Your task to perform on an android device: View the shopping cart on ebay.com. Search for usb-c to usb-b on ebay.com, select the first entry, add it to the cart, then select checkout. Image 0: 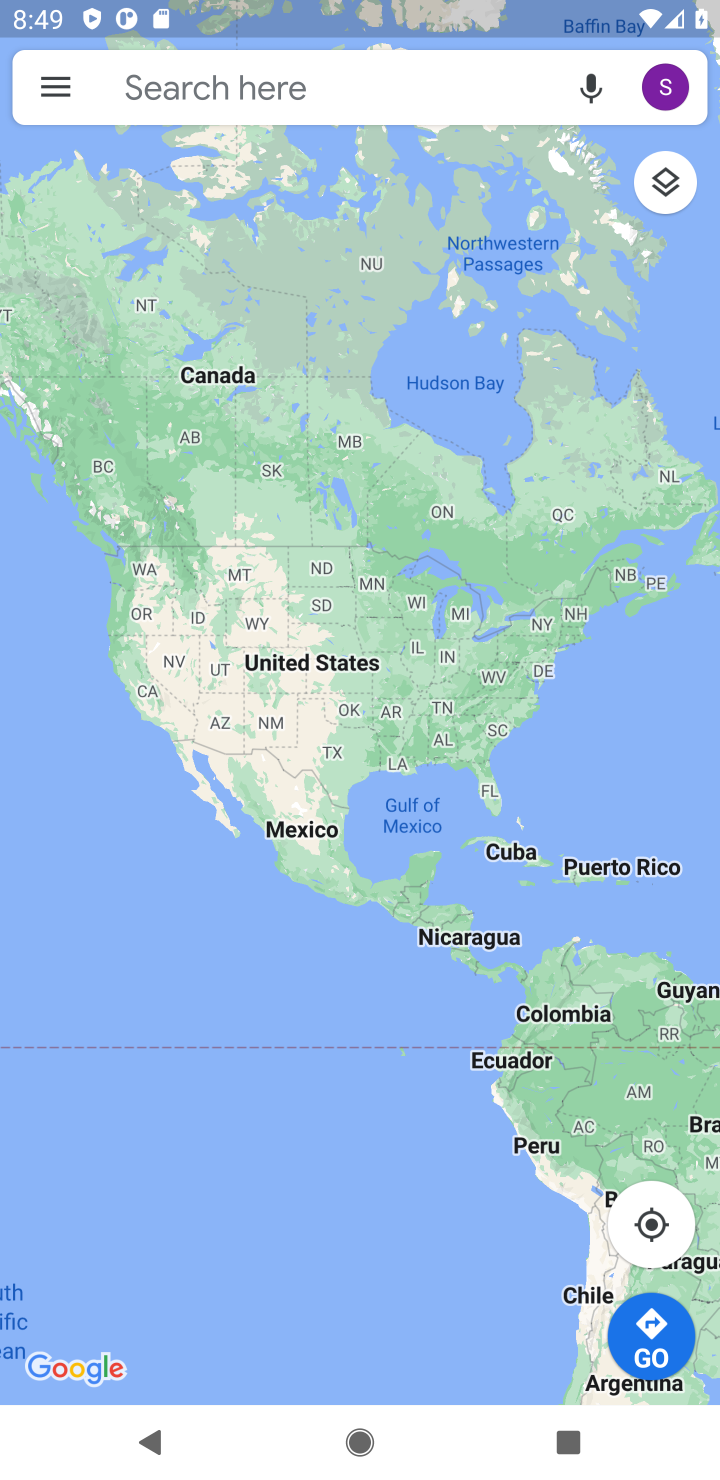
Step 0: press home button
Your task to perform on an android device: View the shopping cart on ebay.com. Search for usb-c to usb-b on ebay.com, select the first entry, add it to the cart, then select checkout. Image 1: 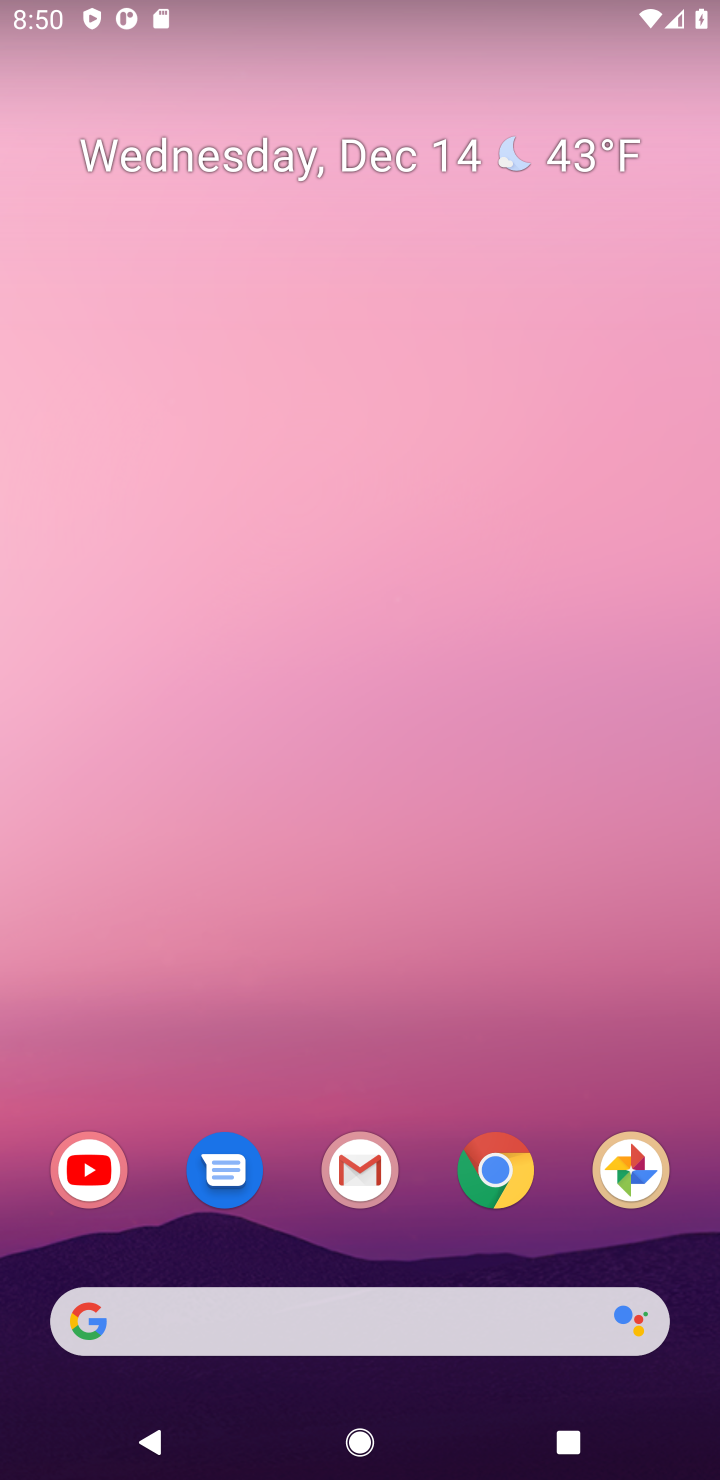
Step 1: click (501, 1167)
Your task to perform on an android device: View the shopping cart on ebay.com. Search for usb-c to usb-b on ebay.com, select the first entry, add it to the cart, then select checkout. Image 2: 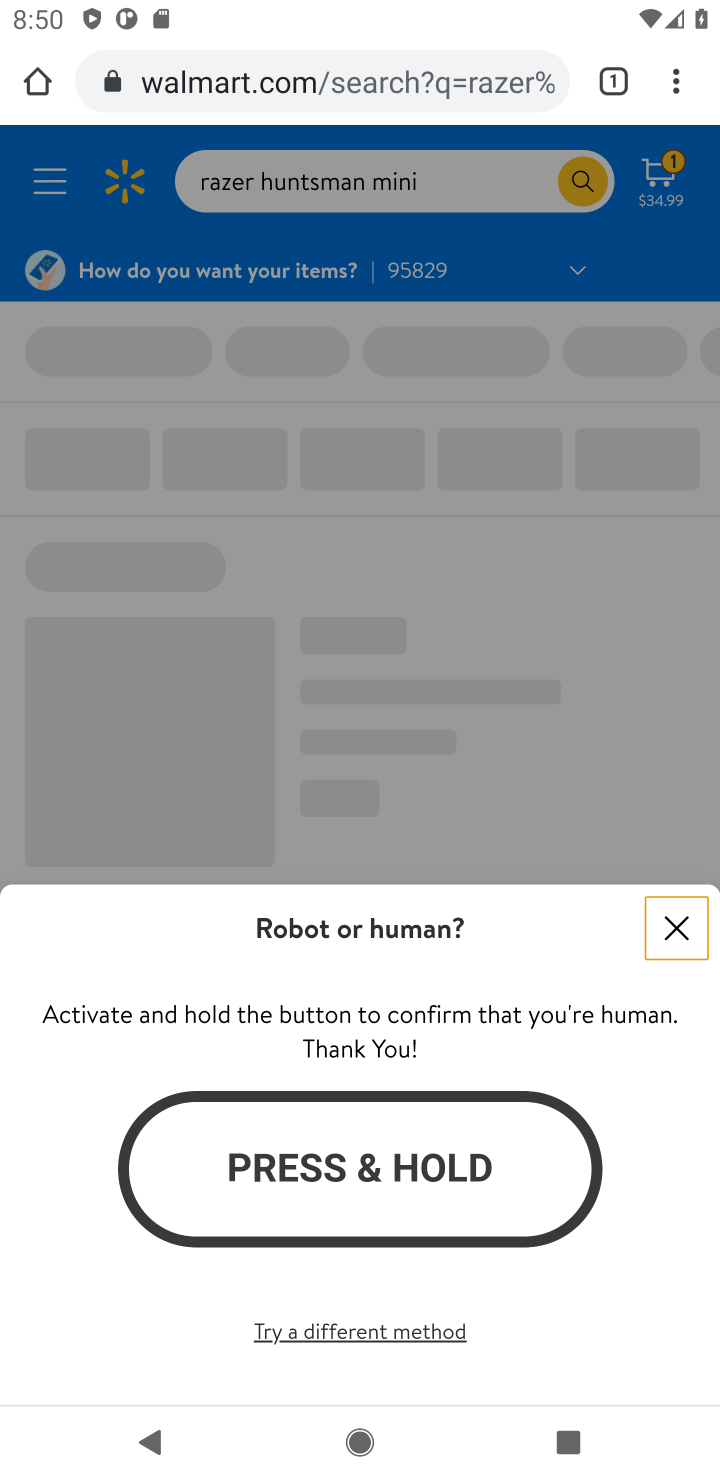
Step 2: click (325, 79)
Your task to perform on an android device: View the shopping cart on ebay.com. Search for usb-c to usb-b on ebay.com, select the first entry, add it to the cart, then select checkout. Image 3: 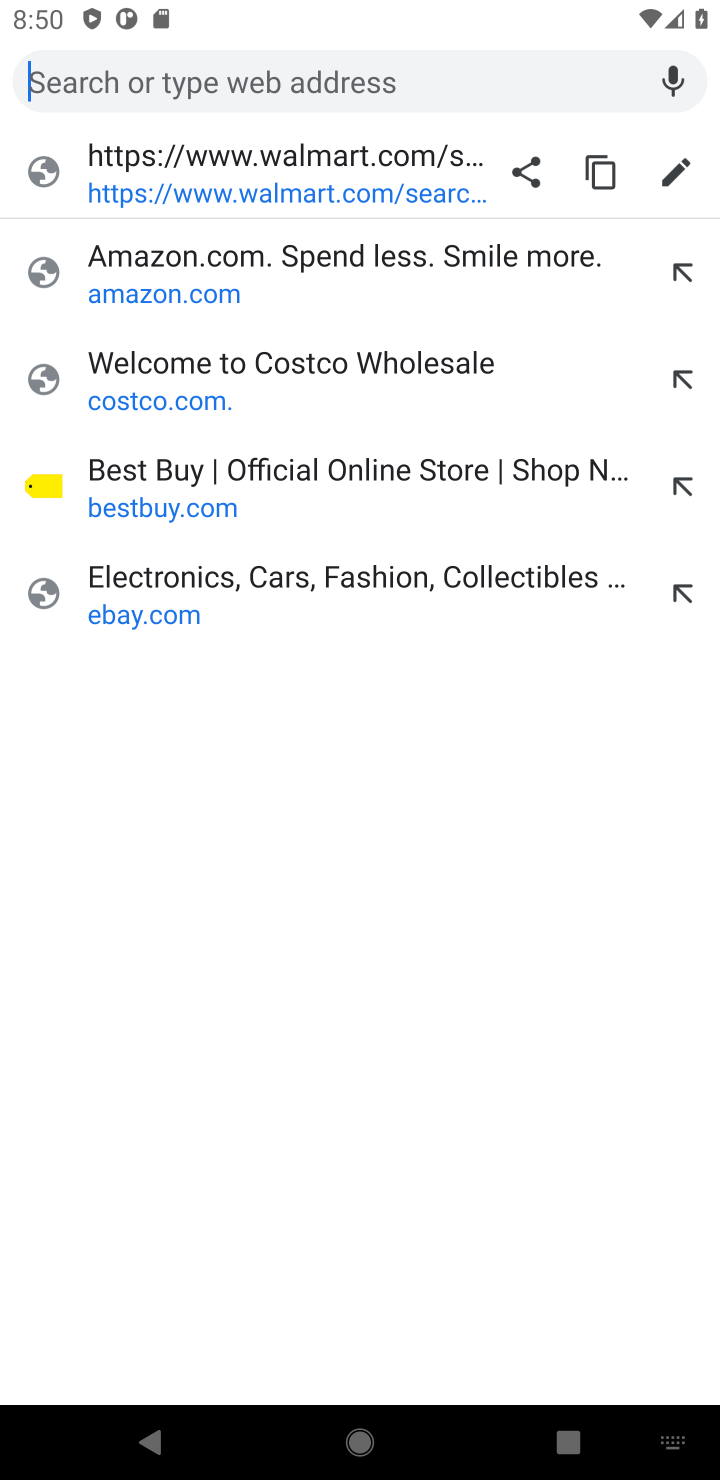
Step 3: click (334, 614)
Your task to perform on an android device: View the shopping cart on ebay.com. Search for usb-c to usb-b on ebay.com, select the first entry, add it to the cart, then select checkout. Image 4: 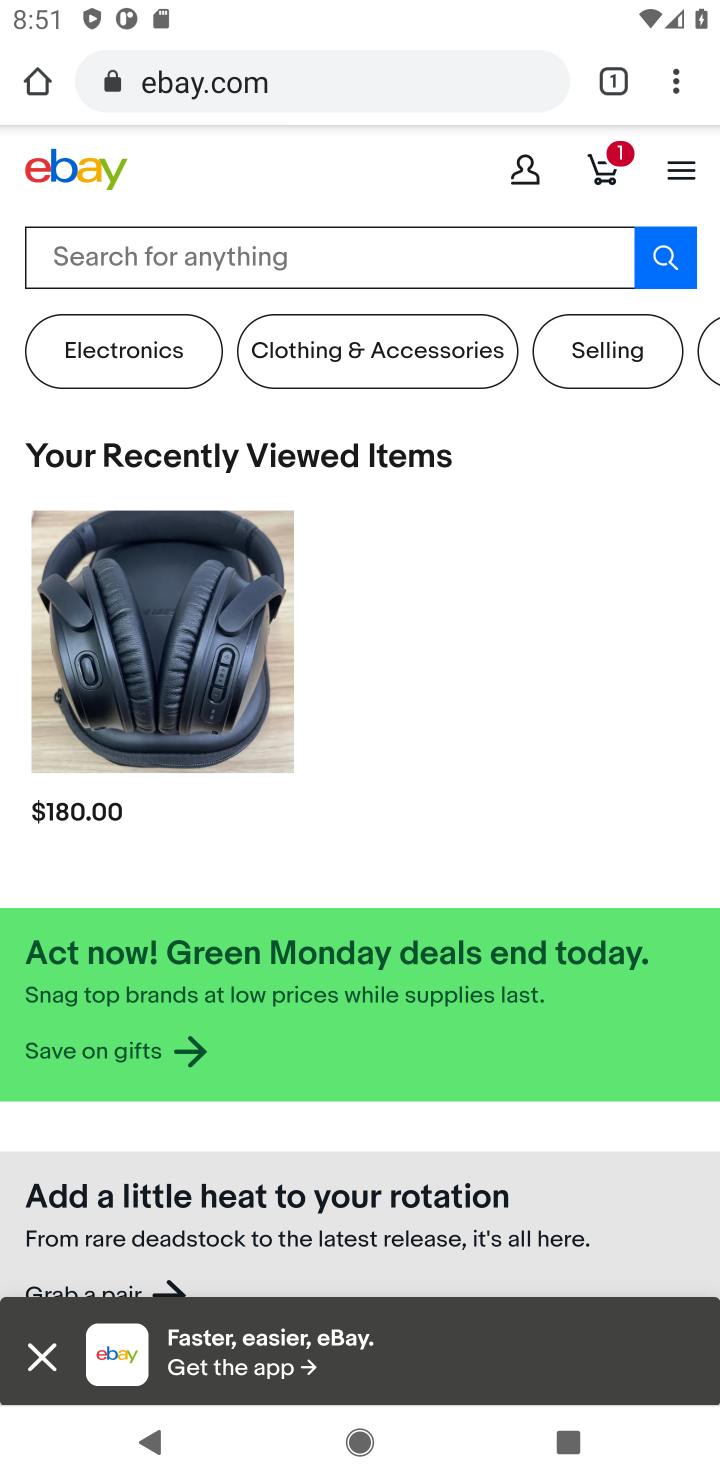
Step 4: click (304, 247)
Your task to perform on an android device: View the shopping cart on ebay.com. Search for usb-c to usb-b on ebay.com, select the first entry, add it to the cart, then select checkout. Image 5: 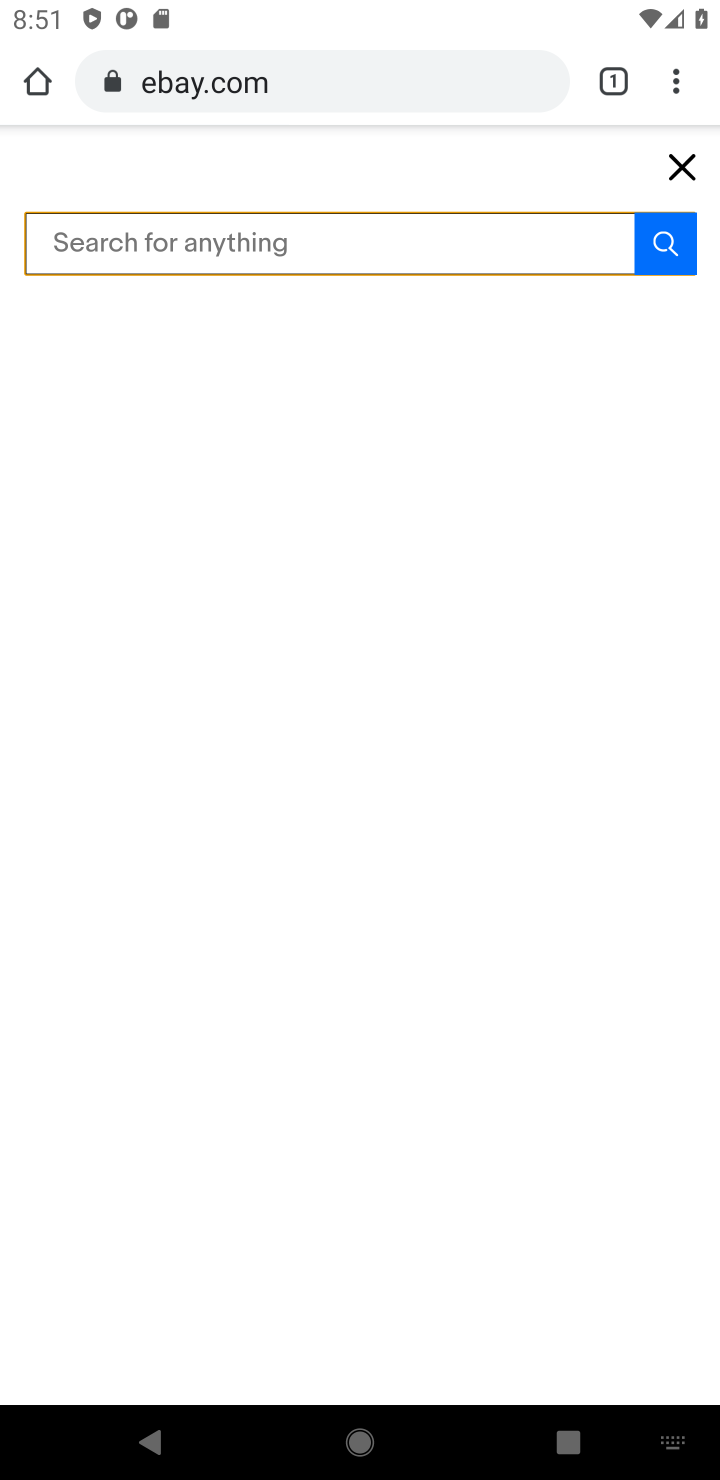
Step 5: type "usb-c to usb-b "
Your task to perform on an android device: View the shopping cart on ebay.com. Search for usb-c to usb-b on ebay.com, select the first entry, add it to the cart, then select checkout. Image 6: 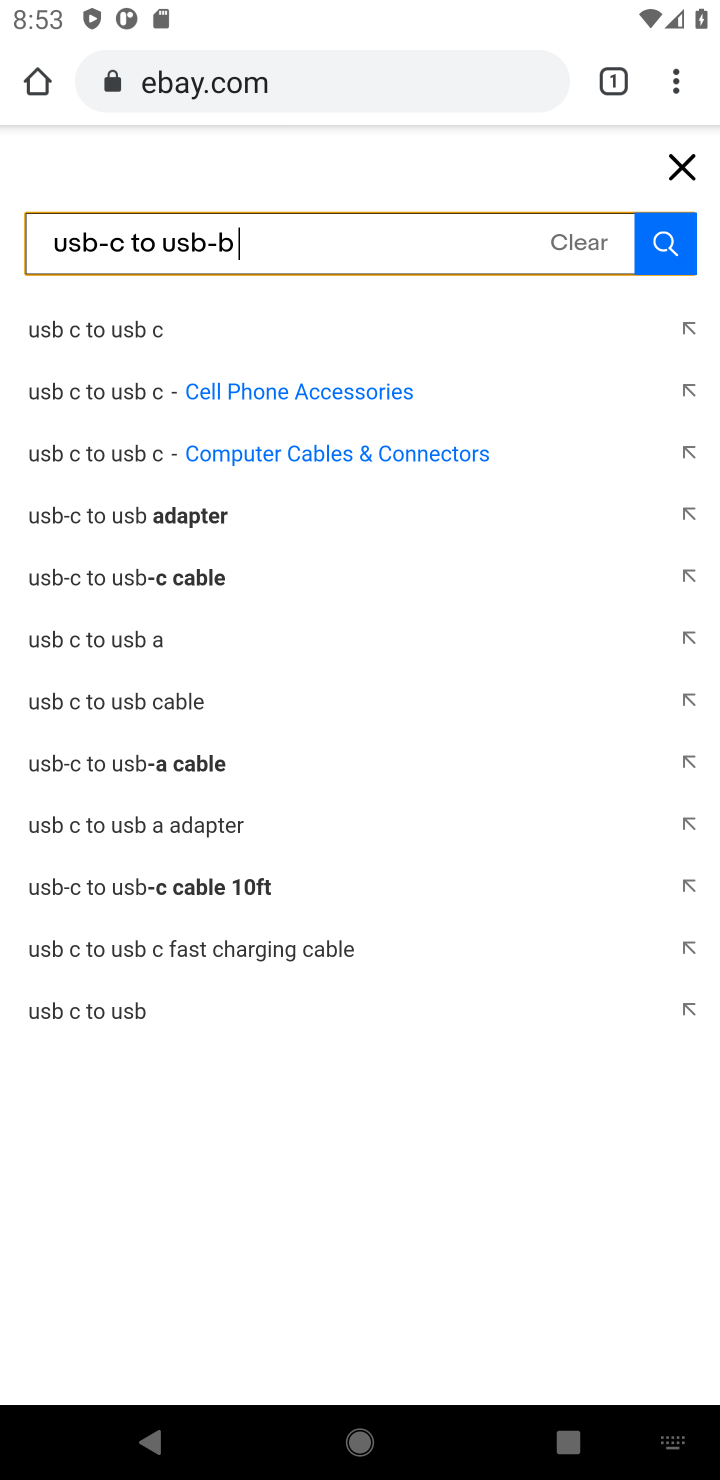
Step 6: click (158, 342)
Your task to perform on an android device: View the shopping cart on ebay.com. Search for usb-c to usb-b on ebay.com, select the first entry, add it to the cart, then select checkout. Image 7: 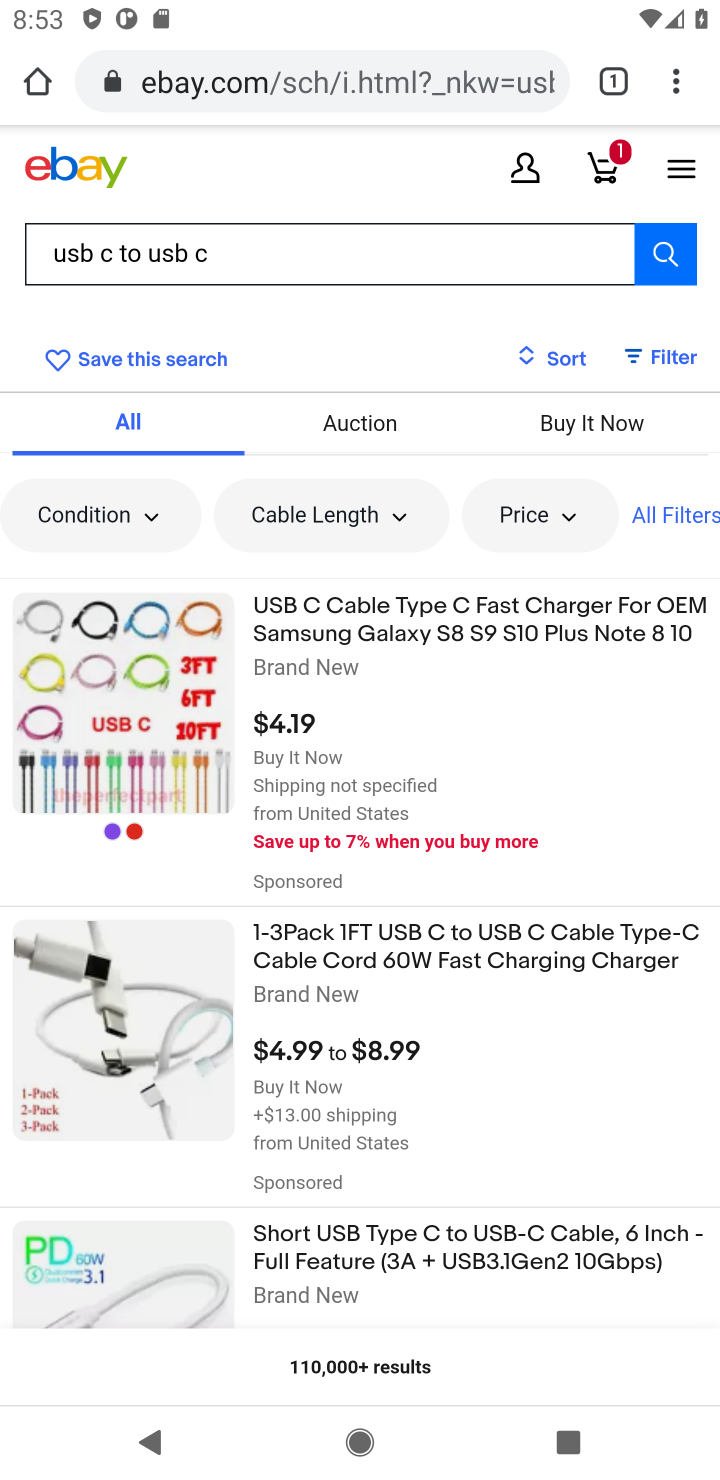
Step 7: click (477, 686)
Your task to perform on an android device: View the shopping cart on ebay.com. Search for usb-c to usb-b on ebay.com, select the first entry, add it to the cart, then select checkout. Image 8: 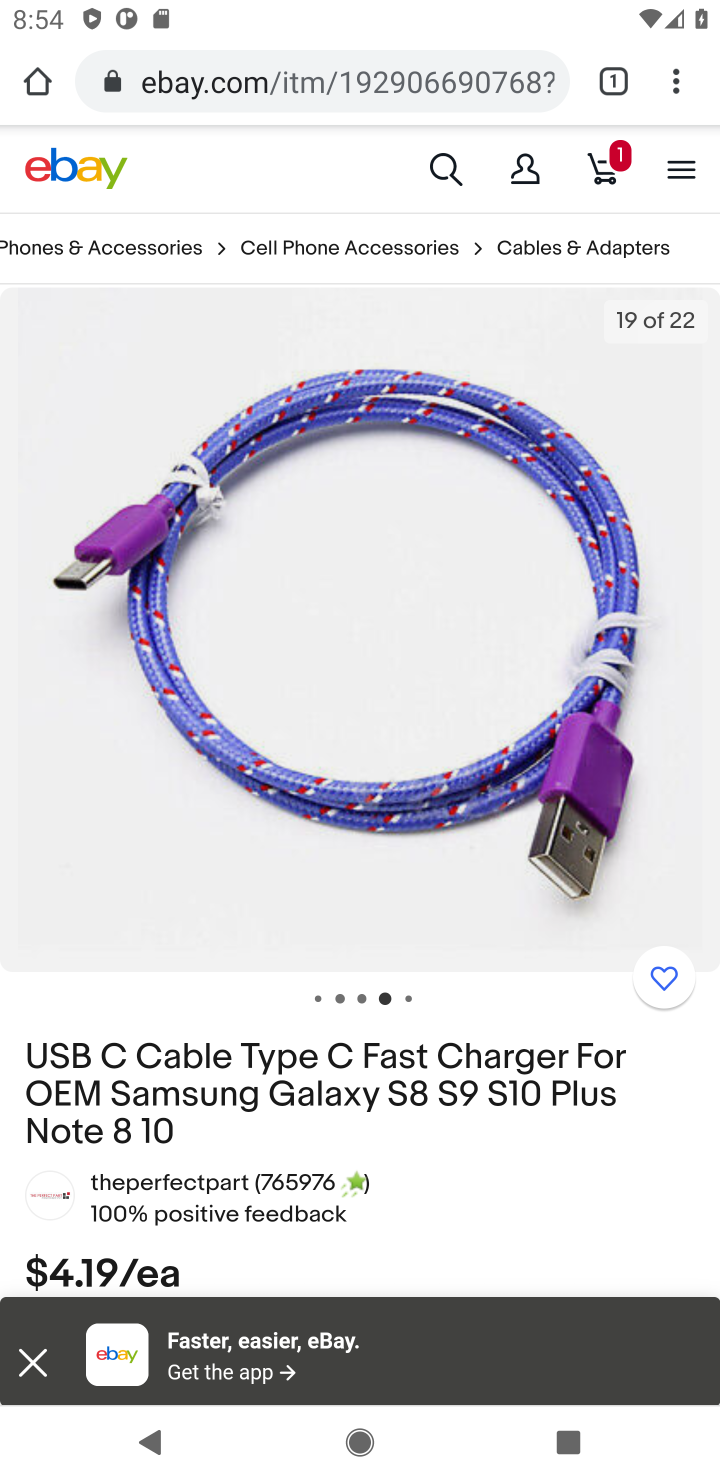
Step 8: drag from (552, 1246) to (390, 249)
Your task to perform on an android device: View the shopping cart on ebay.com. Search for usb-c to usb-b on ebay.com, select the first entry, add it to the cart, then select checkout. Image 9: 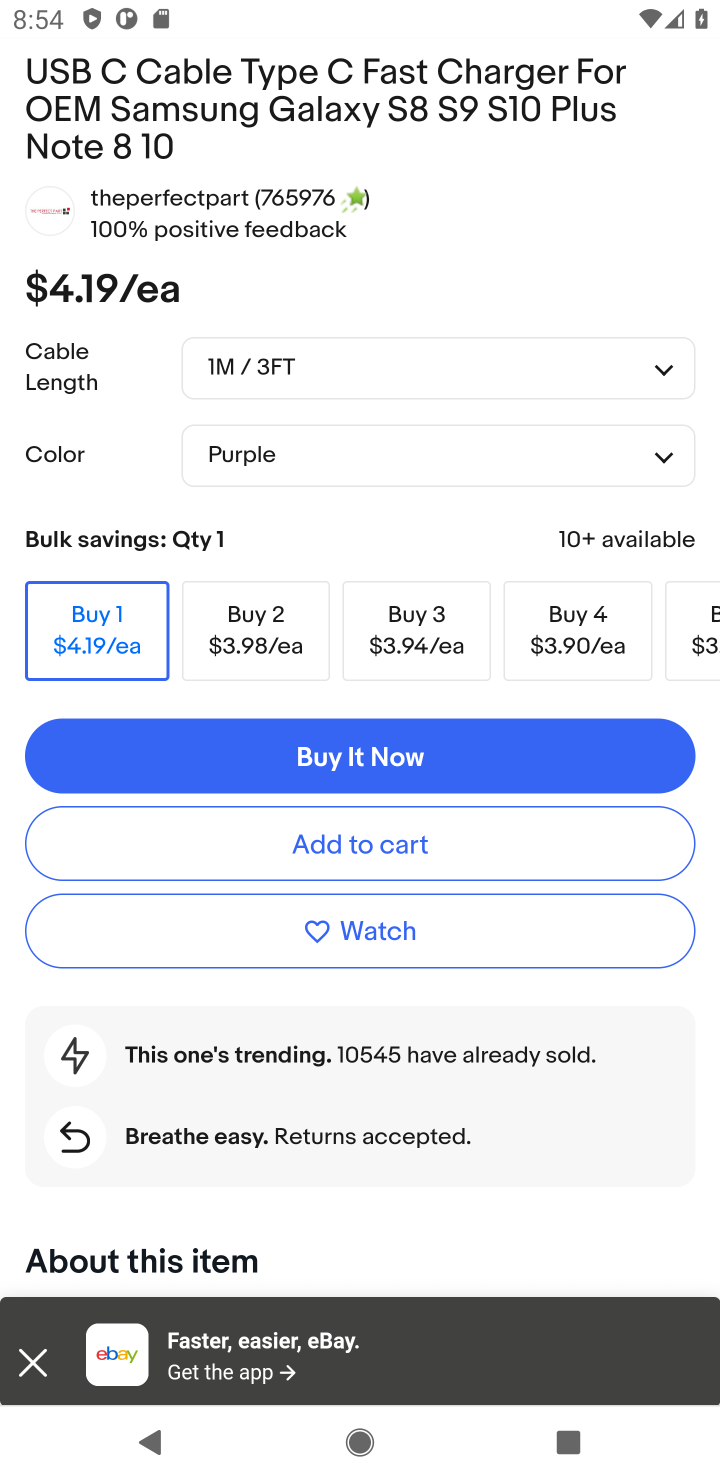
Step 9: click (374, 857)
Your task to perform on an android device: View the shopping cart on ebay.com. Search for usb-c to usb-b on ebay.com, select the first entry, add it to the cart, then select checkout. Image 10: 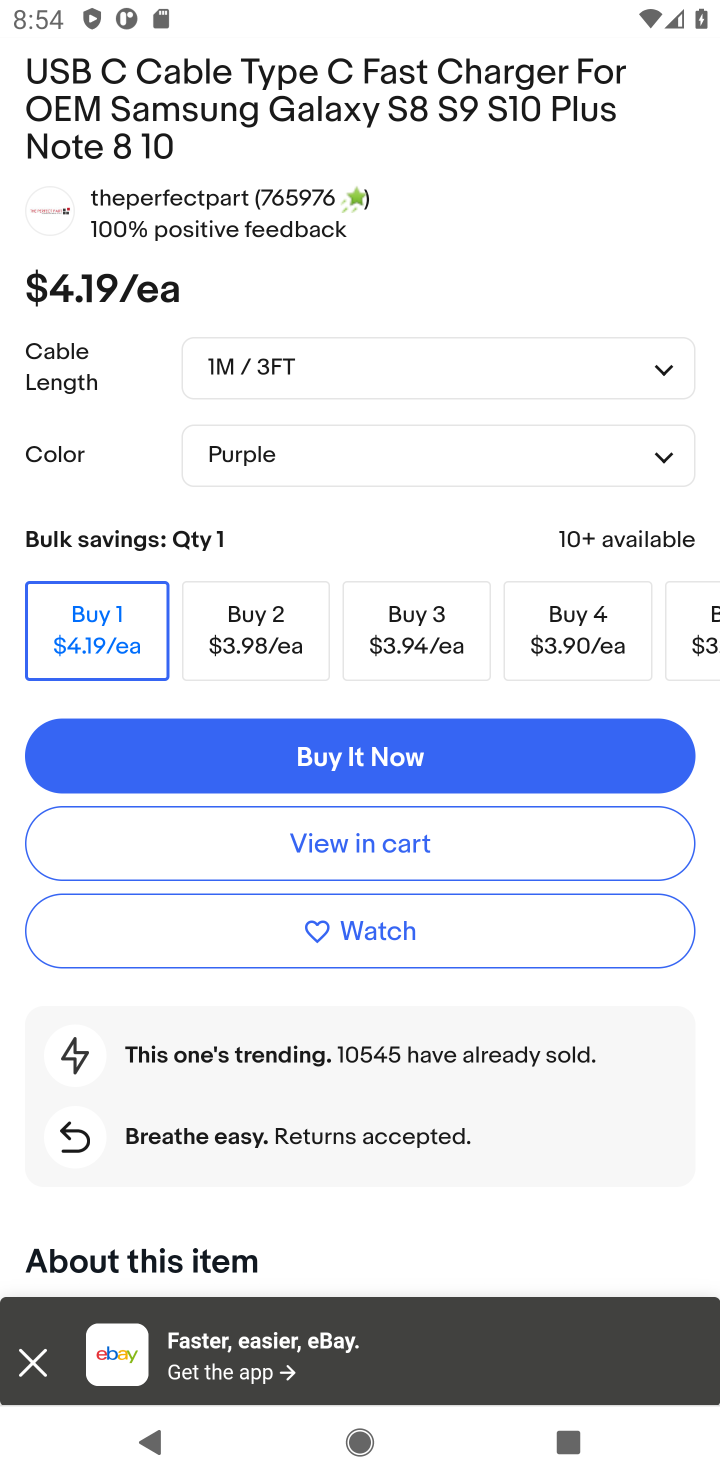
Step 10: click (374, 857)
Your task to perform on an android device: View the shopping cart on ebay.com. Search for usb-c to usb-b on ebay.com, select the first entry, add it to the cart, then select checkout. Image 11: 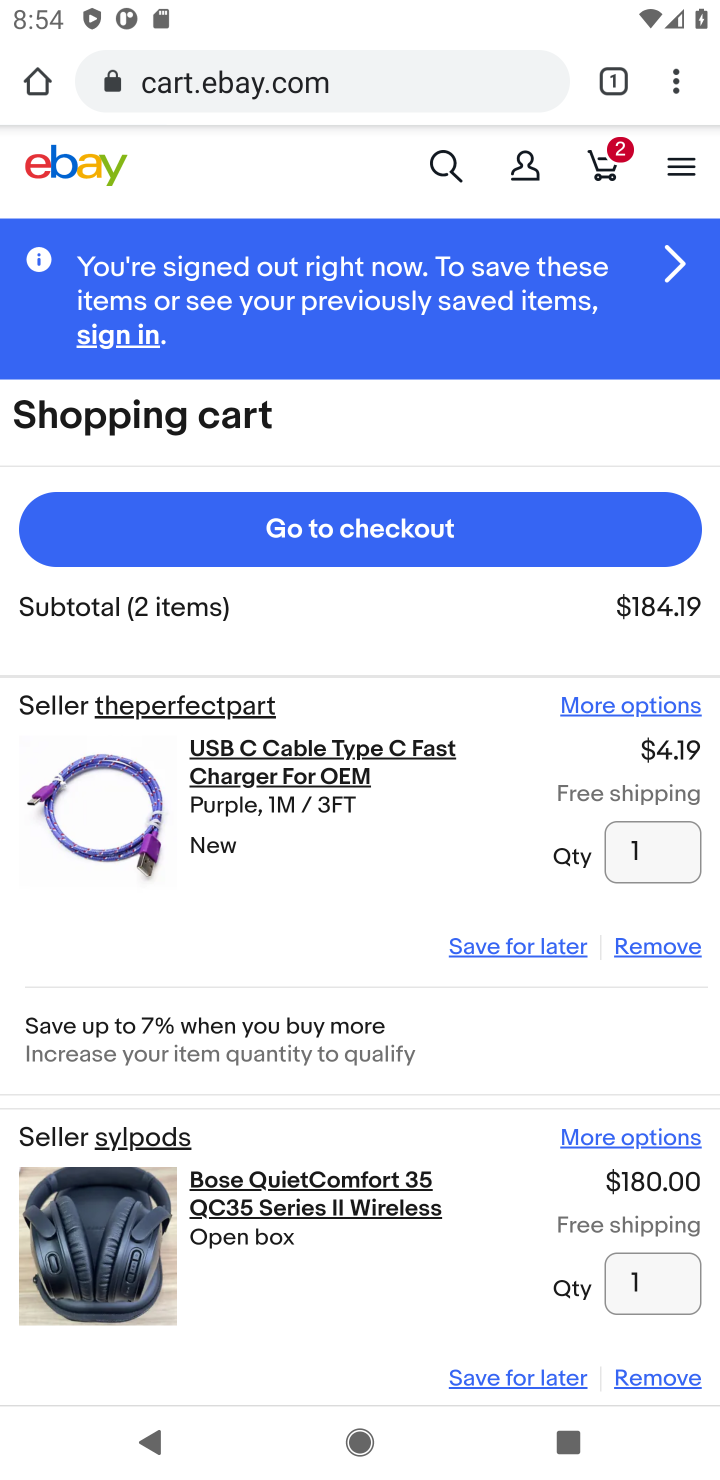
Step 11: click (344, 563)
Your task to perform on an android device: View the shopping cart on ebay.com. Search for usb-c to usb-b on ebay.com, select the first entry, add it to the cart, then select checkout. Image 12: 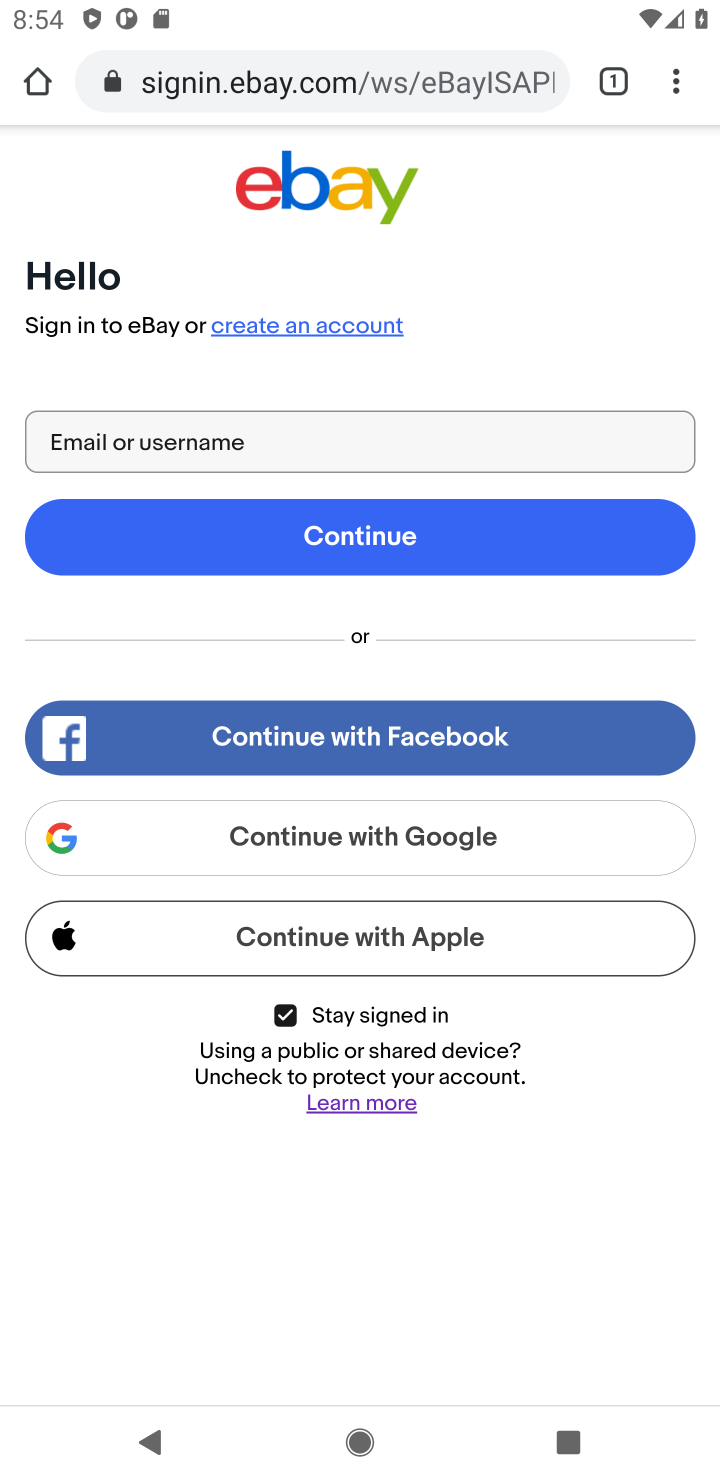
Step 12: task complete